Your task to perform on an android device: turn vacation reply on in the gmail app Image 0: 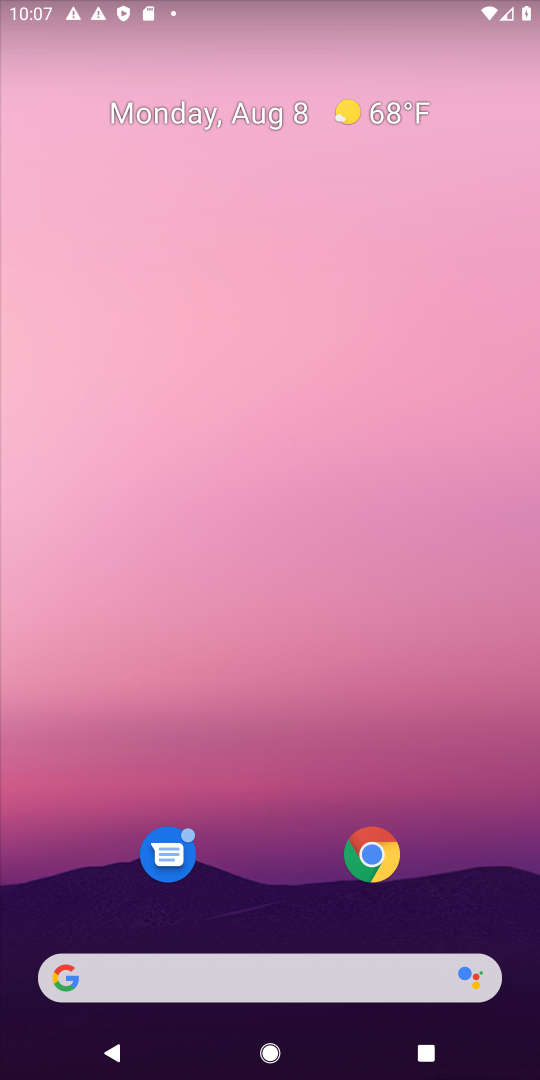
Step 0: drag from (258, 616) to (239, 45)
Your task to perform on an android device: turn vacation reply on in the gmail app Image 1: 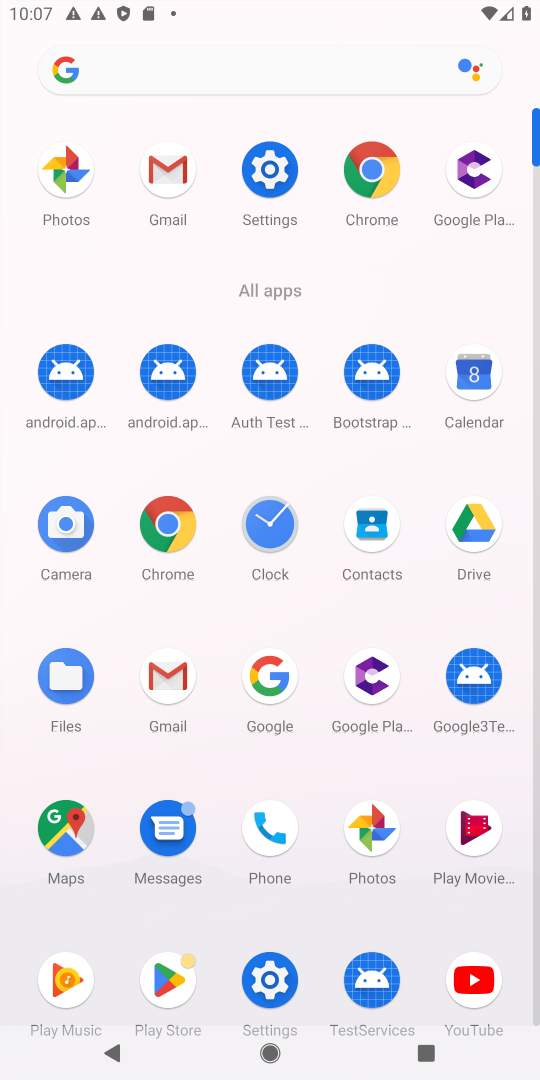
Step 1: click (149, 677)
Your task to perform on an android device: turn vacation reply on in the gmail app Image 2: 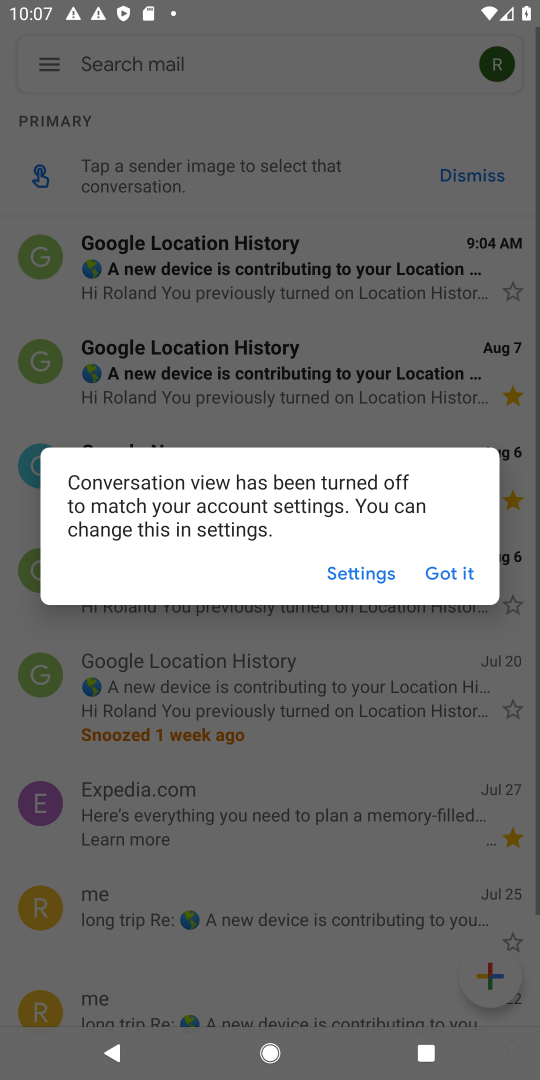
Step 2: click (451, 570)
Your task to perform on an android device: turn vacation reply on in the gmail app Image 3: 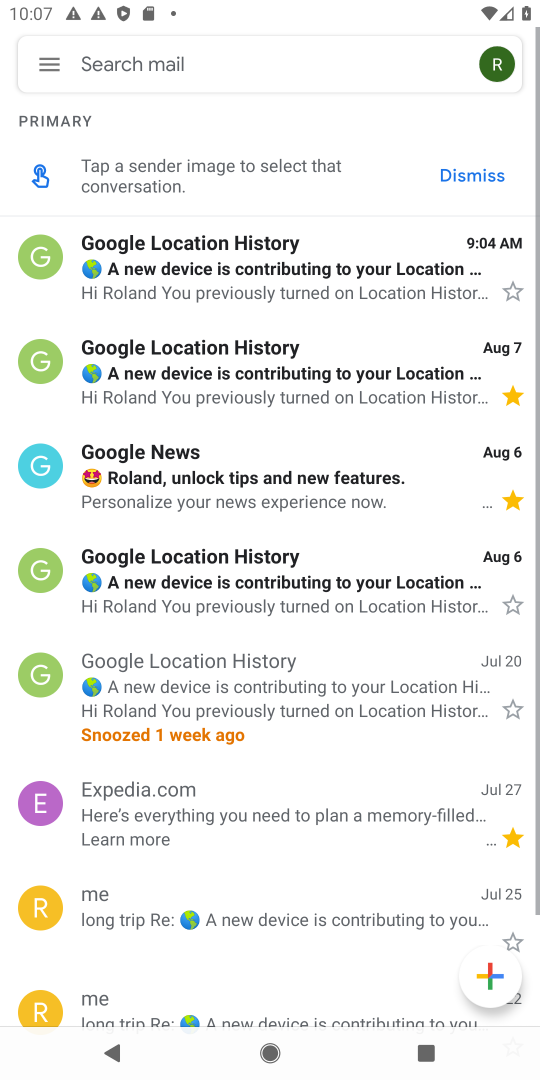
Step 3: task complete